Your task to perform on an android device: Go to Wikipedia Image 0: 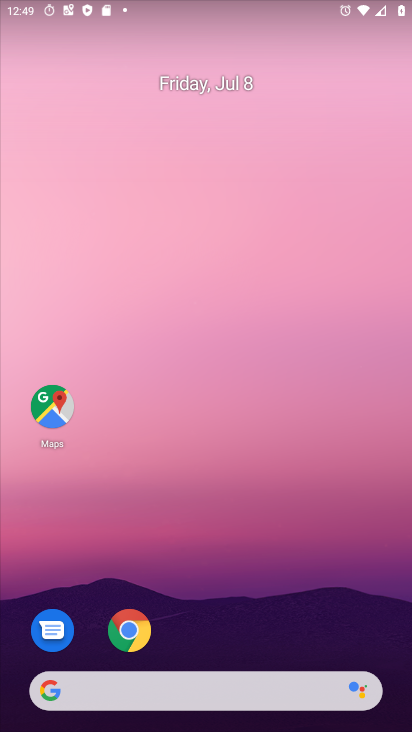
Step 0: click (132, 643)
Your task to perform on an android device: Go to Wikipedia Image 1: 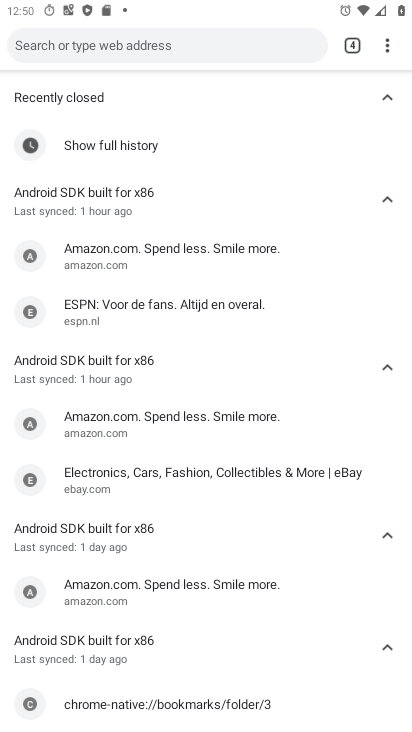
Step 1: click (351, 45)
Your task to perform on an android device: Go to Wikipedia Image 2: 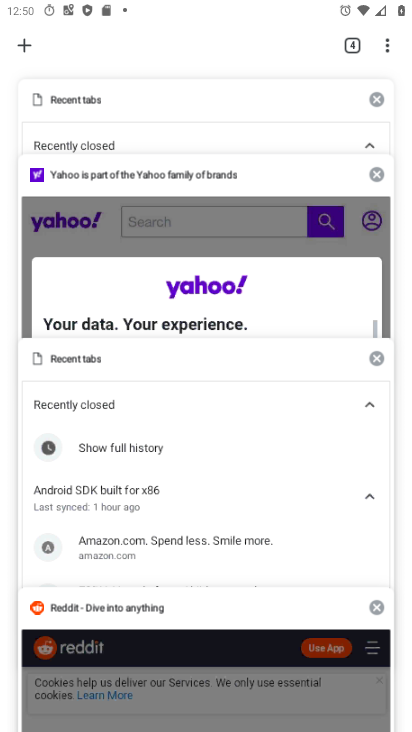
Step 2: click (26, 52)
Your task to perform on an android device: Go to Wikipedia Image 3: 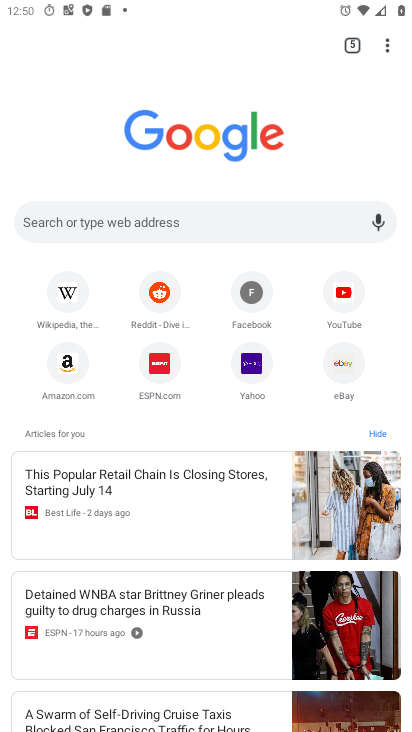
Step 3: click (69, 285)
Your task to perform on an android device: Go to Wikipedia Image 4: 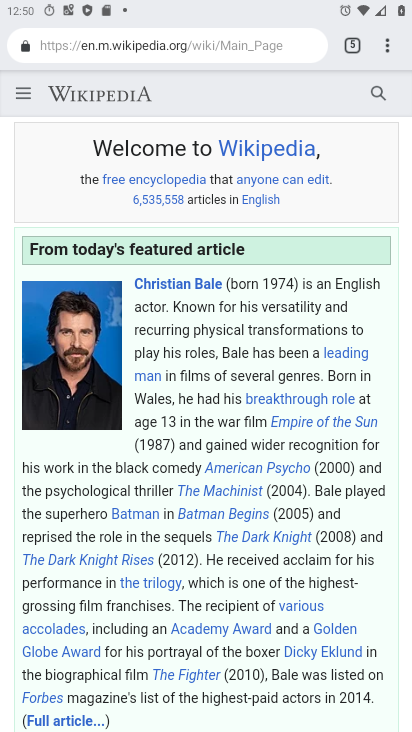
Step 4: task complete